Your task to perform on an android device: Clear the shopping cart on ebay. Search for "macbook" on ebay, select the first entry, add it to the cart, then select checkout. Image 0: 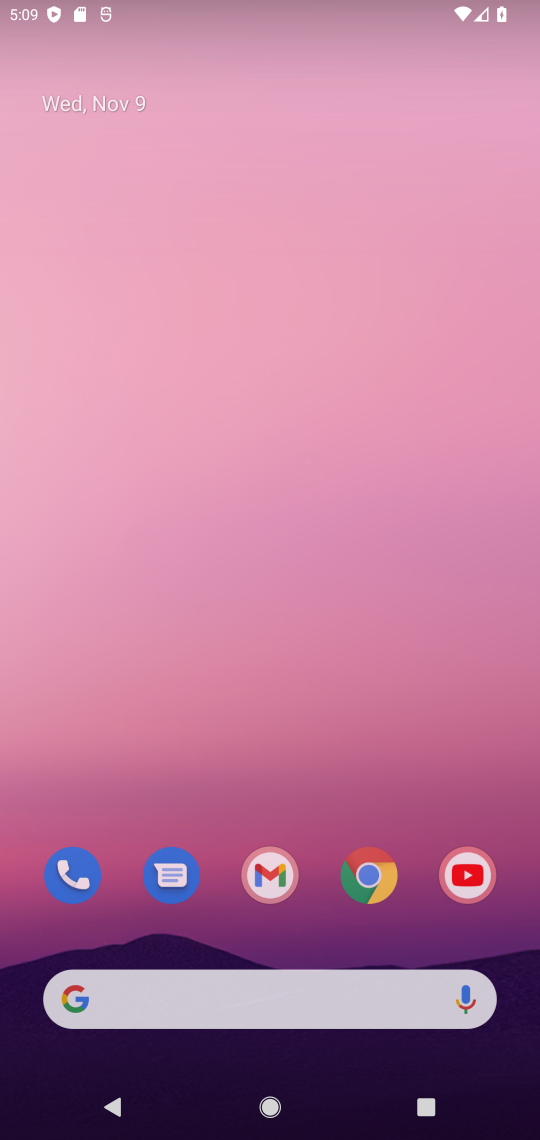
Step 0: click (72, 468)
Your task to perform on an android device: Clear the shopping cart on ebay. Search for "macbook" on ebay, select the first entry, add it to the cart, then select checkout. Image 1: 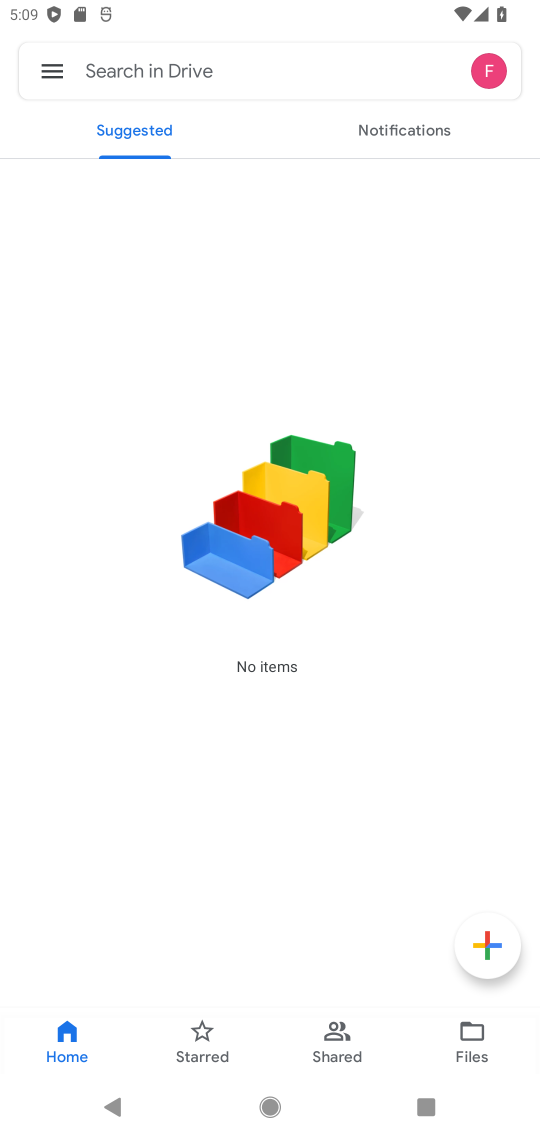
Step 1: press home button
Your task to perform on an android device: Clear the shopping cart on ebay. Search for "macbook" on ebay, select the first entry, add it to the cart, then select checkout. Image 2: 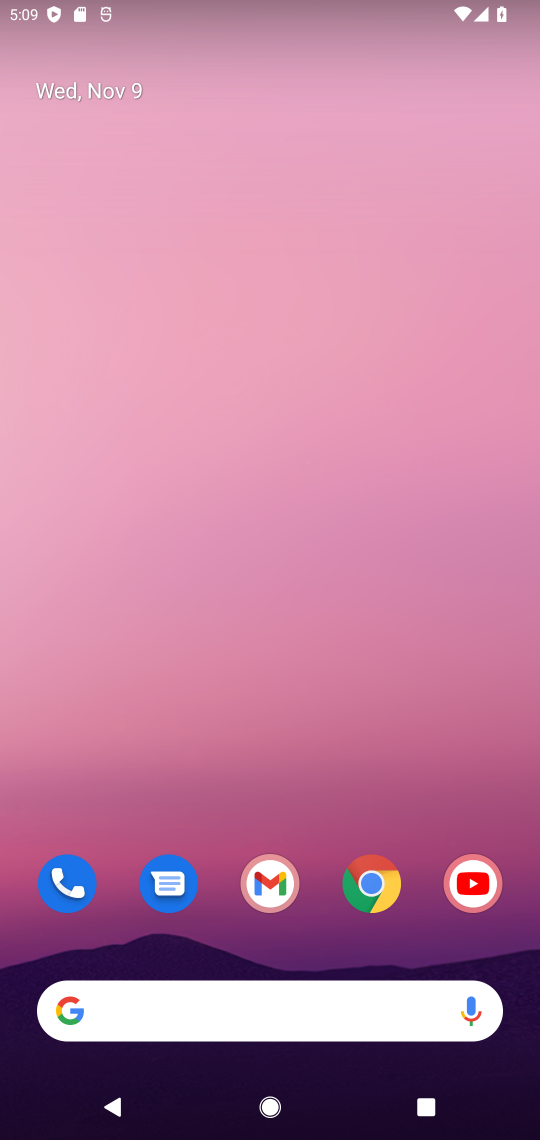
Step 2: click (377, 877)
Your task to perform on an android device: Clear the shopping cart on ebay. Search for "macbook" on ebay, select the first entry, add it to the cart, then select checkout. Image 3: 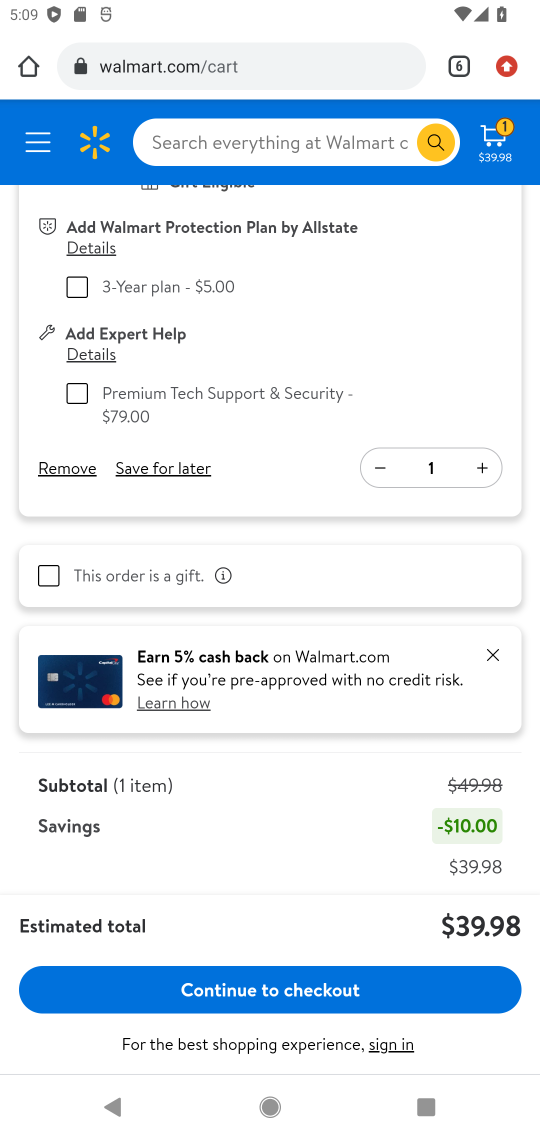
Step 3: click (470, 65)
Your task to perform on an android device: Clear the shopping cart on ebay. Search for "macbook" on ebay, select the first entry, add it to the cart, then select checkout. Image 4: 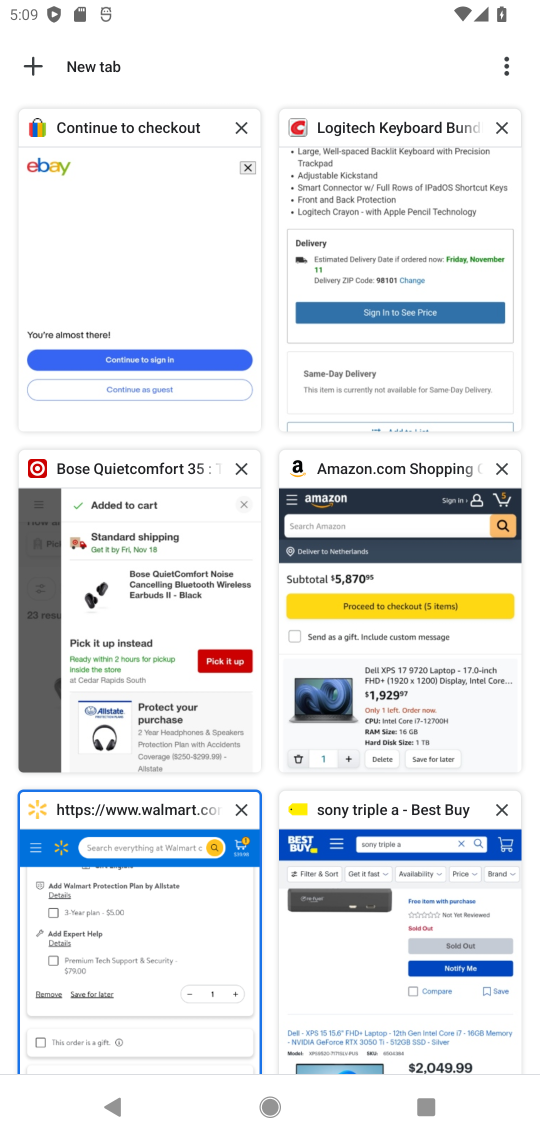
Step 4: click (154, 258)
Your task to perform on an android device: Clear the shopping cart on ebay. Search for "macbook" on ebay, select the first entry, add it to the cart, then select checkout. Image 5: 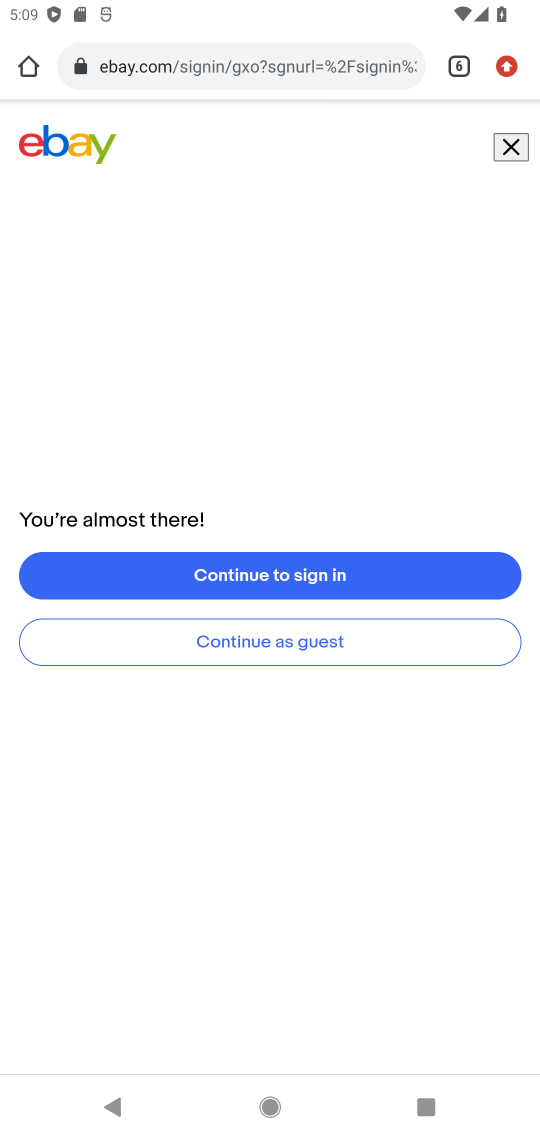
Step 5: press back button
Your task to perform on an android device: Clear the shopping cart on ebay. Search for "macbook" on ebay, select the first entry, add it to the cart, then select checkout. Image 6: 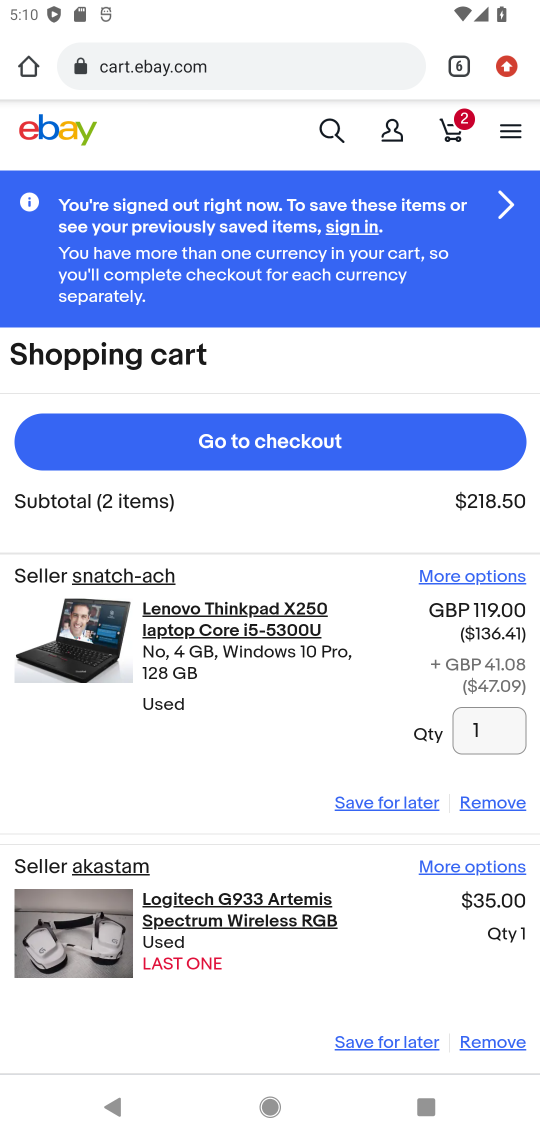
Step 6: click (321, 129)
Your task to perform on an android device: Clear the shopping cart on ebay. Search for "macbook" on ebay, select the first entry, add it to the cart, then select checkout. Image 7: 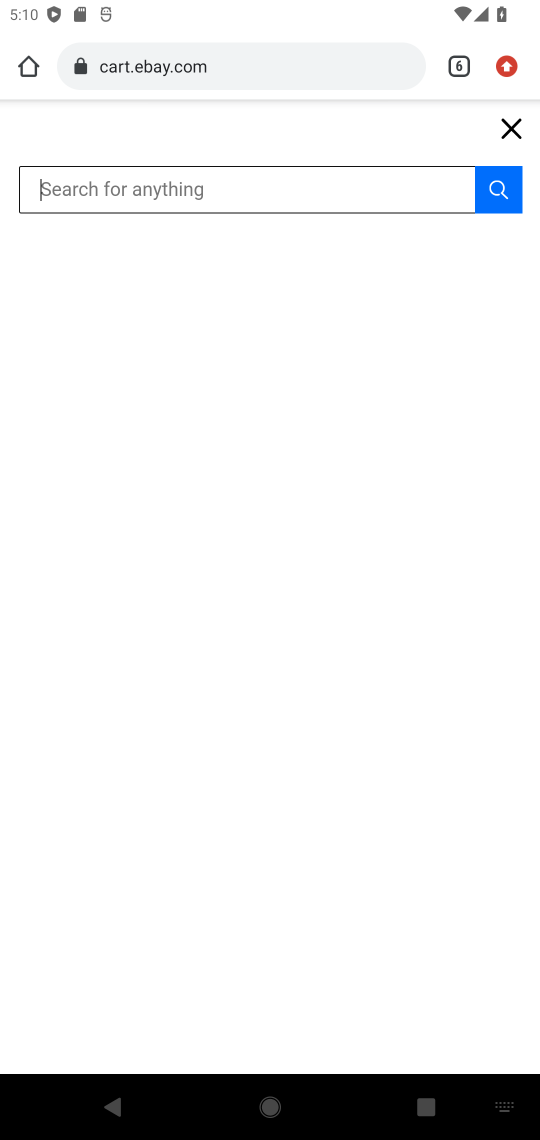
Step 7: type "macbook"
Your task to perform on an android device: Clear the shopping cart on ebay. Search for "macbook" on ebay, select the first entry, add it to the cart, then select checkout. Image 8: 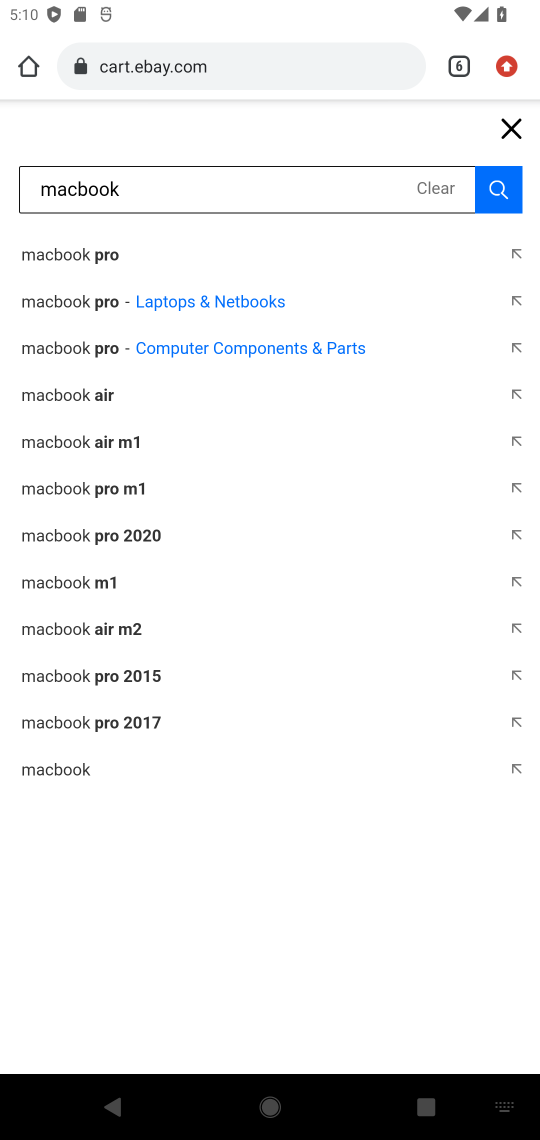
Step 8: click (83, 297)
Your task to perform on an android device: Clear the shopping cart on ebay. Search for "macbook" on ebay, select the first entry, add it to the cart, then select checkout. Image 9: 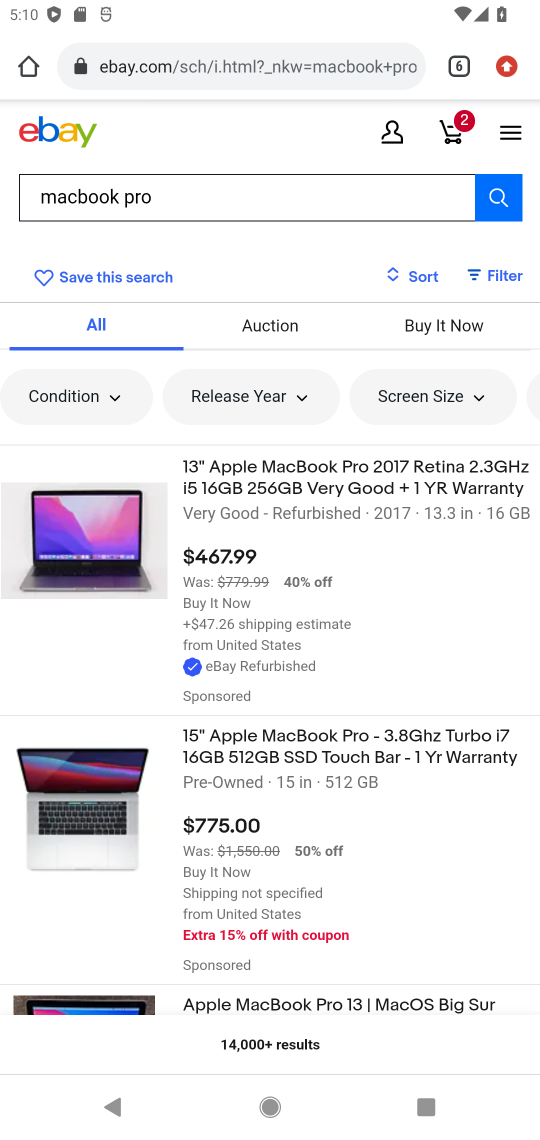
Step 9: click (385, 450)
Your task to perform on an android device: Clear the shopping cart on ebay. Search for "macbook" on ebay, select the first entry, add it to the cart, then select checkout. Image 10: 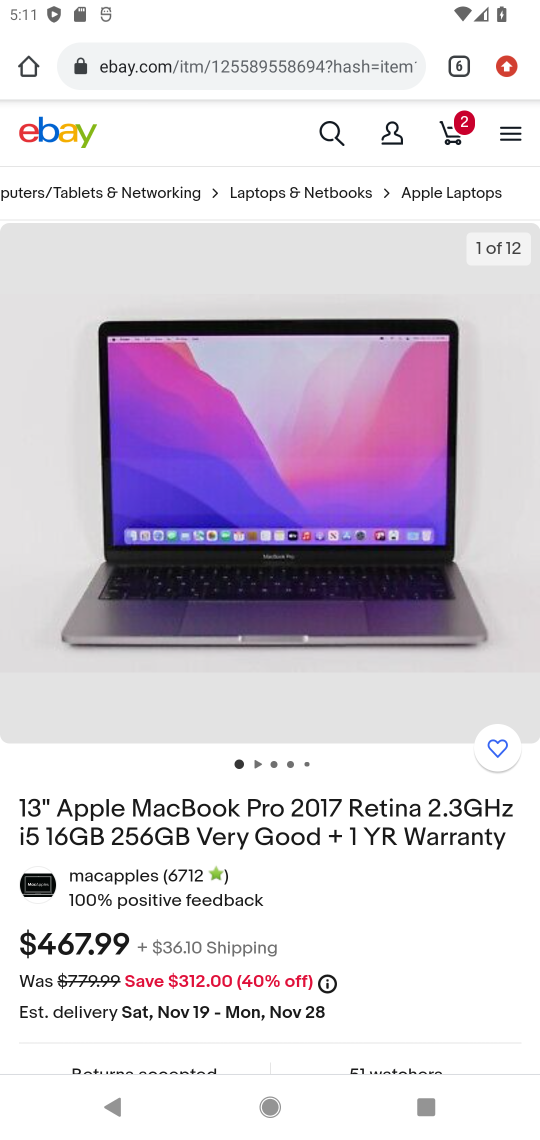
Step 10: drag from (329, 917) to (327, 316)
Your task to perform on an android device: Clear the shopping cart on ebay. Search for "macbook" on ebay, select the first entry, add it to the cart, then select checkout. Image 11: 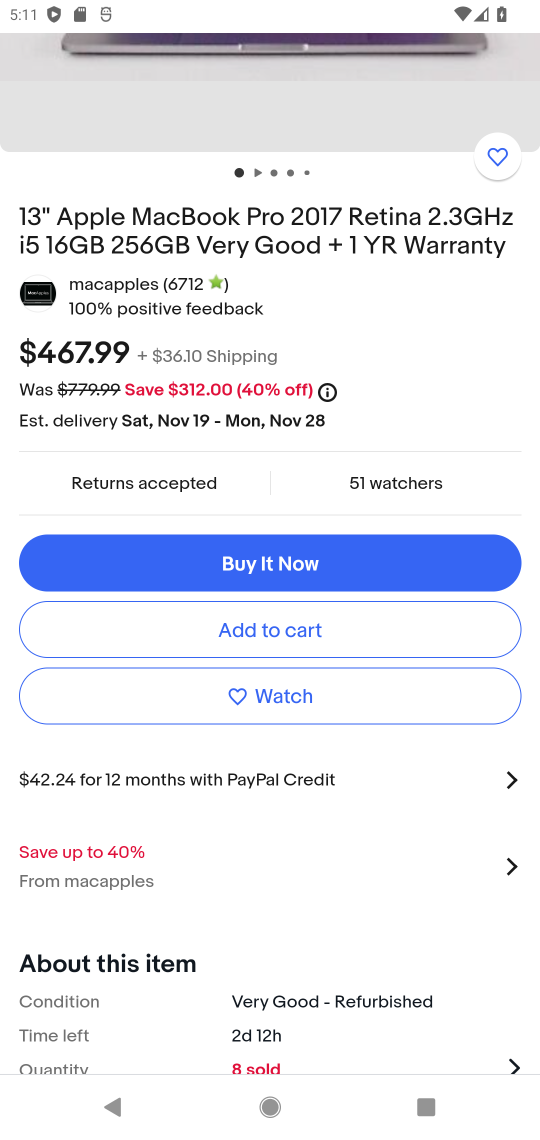
Step 11: click (294, 631)
Your task to perform on an android device: Clear the shopping cart on ebay. Search for "macbook" on ebay, select the first entry, add it to the cart, then select checkout. Image 12: 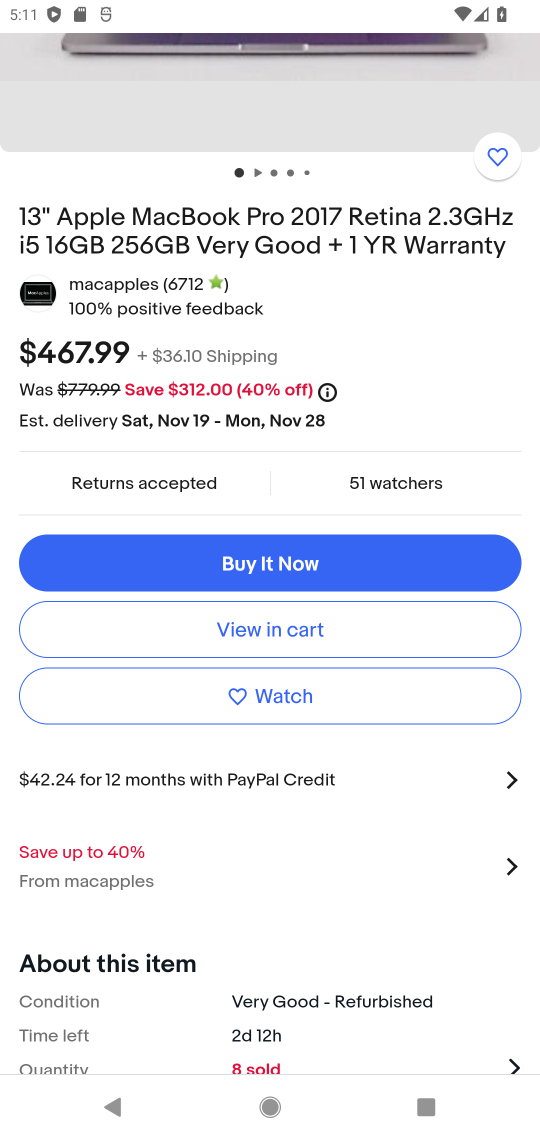
Step 12: task complete